Your task to perform on an android device: change notification settings in the gmail app Image 0: 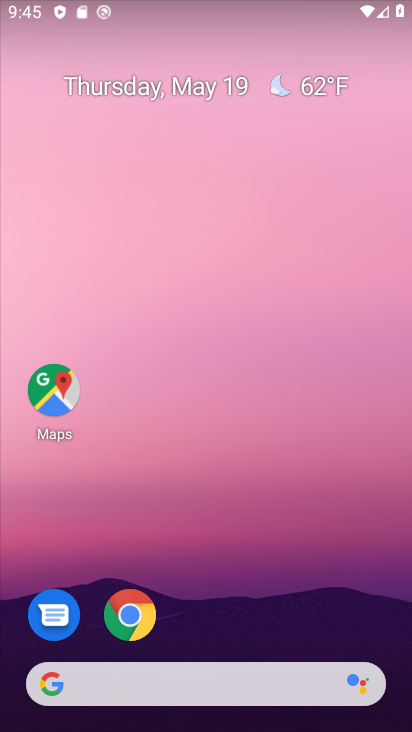
Step 0: drag from (338, 535) to (184, 27)
Your task to perform on an android device: change notification settings in the gmail app Image 1: 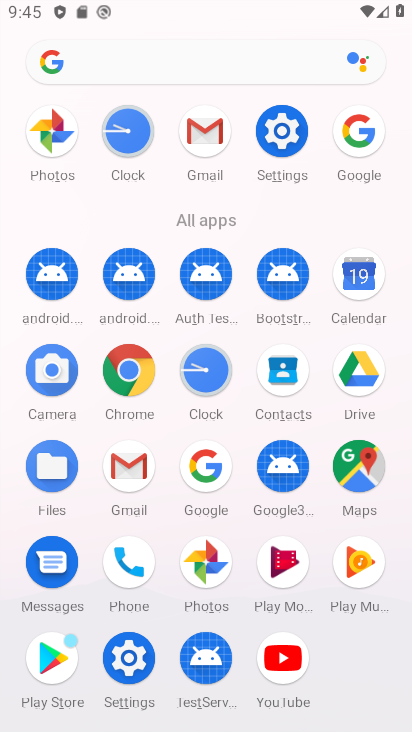
Step 1: click (132, 477)
Your task to perform on an android device: change notification settings in the gmail app Image 2: 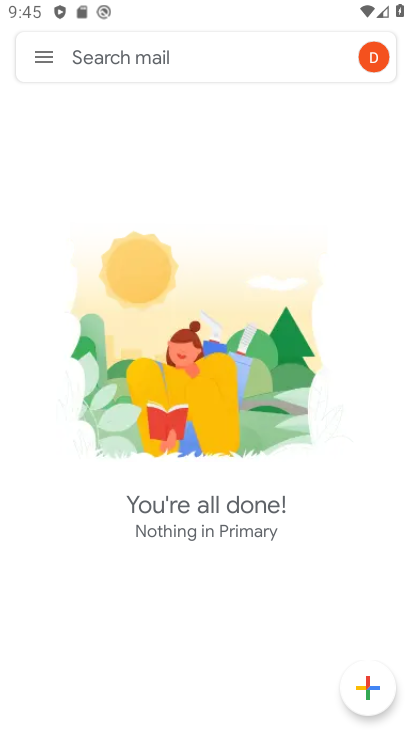
Step 2: click (48, 64)
Your task to perform on an android device: change notification settings in the gmail app Image 3: 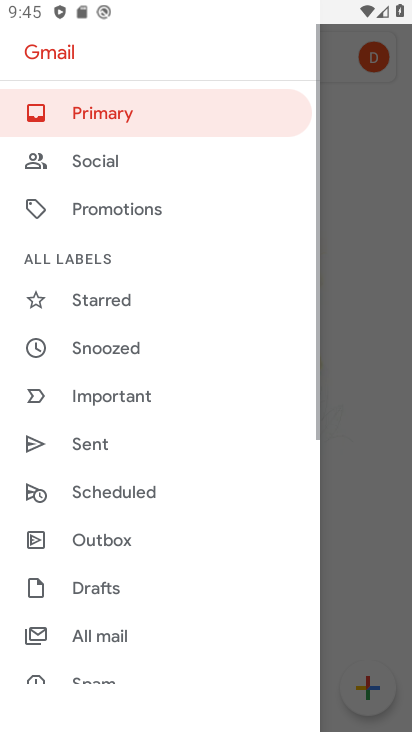
Step 3: drag from (119, 606) to (121, 92)
Your task to perform on an android device: change notification settings in the gmail app Image 4: 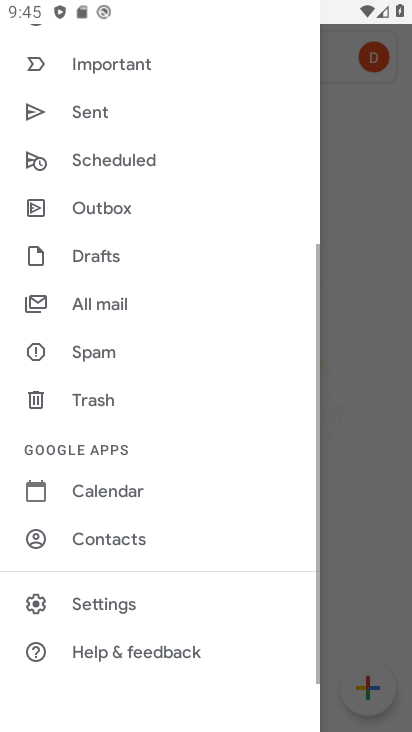
Step 4: click (124, 612)
Your task to perform on an android device: change notification settings in the gmail app Image 5: 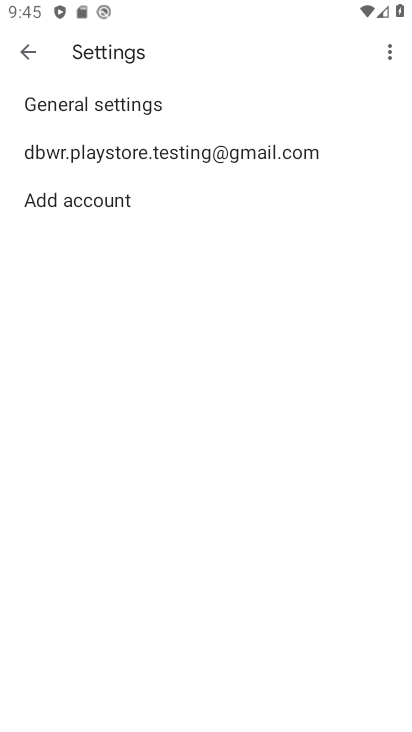
Step 5: click (130, 150)
Your task to perform on an android device: change notification settings in the gmail app Image 6: 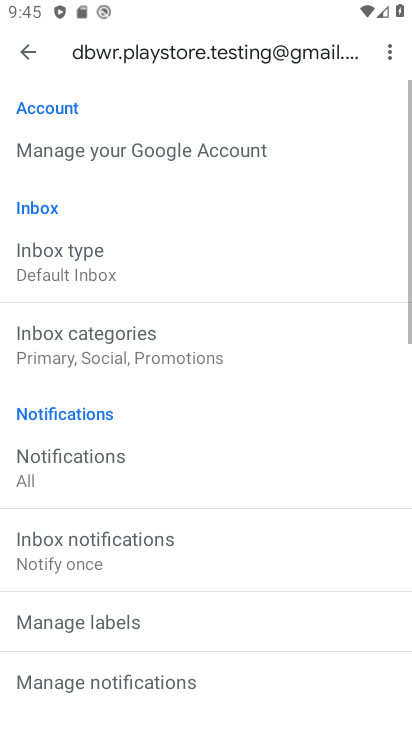
Step 6: click (95, 467)
Your task to perform on an android device: change notification settings in the gmail app Image 7: 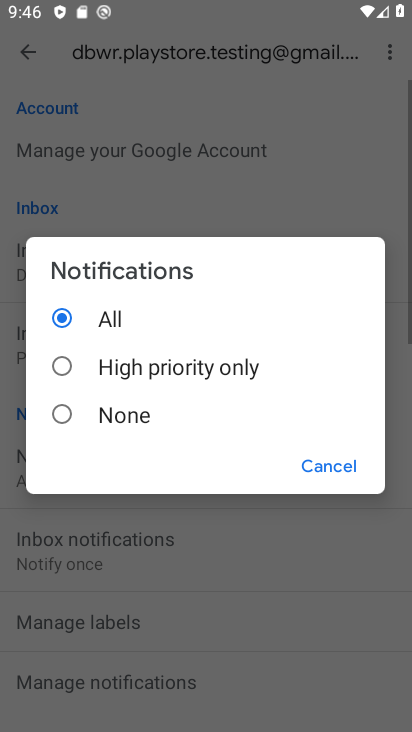
Step 7: click (131, 413)
Your task to perform on an android device: change notification settings in the gmail app Image 8: 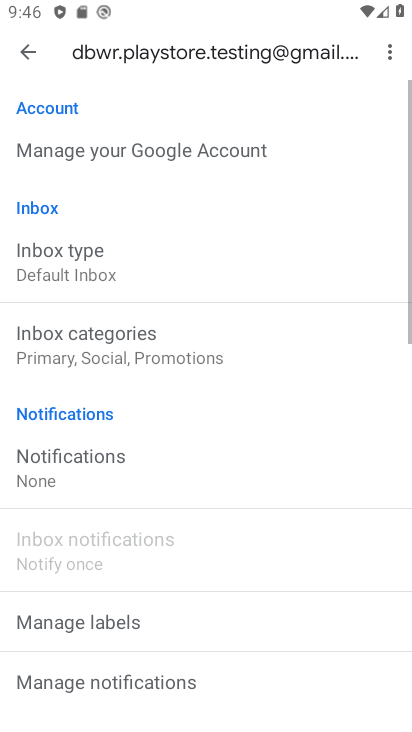
Step 8: task complete